Your task to perform on an android device: Go to Amazon Image 0: 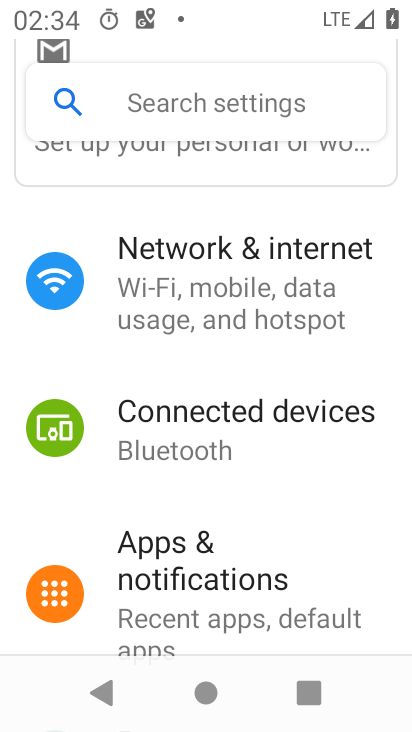
Step 0: press home button
Your task to perform on an android device: Go to Amazon Image 1: 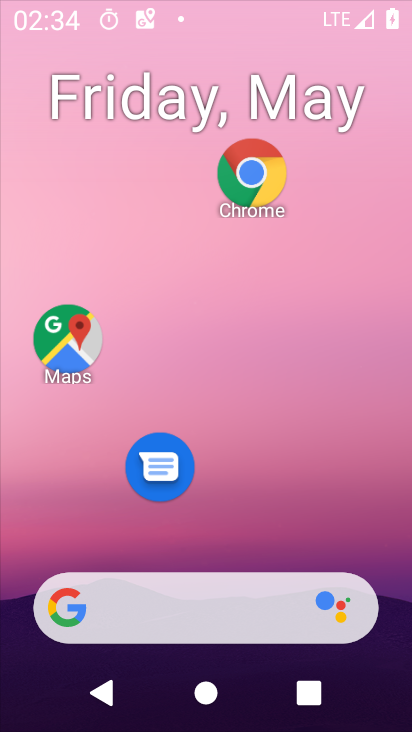
Step 1: press home button
Your task to perform on an android device: Go to Amazon Image 2: 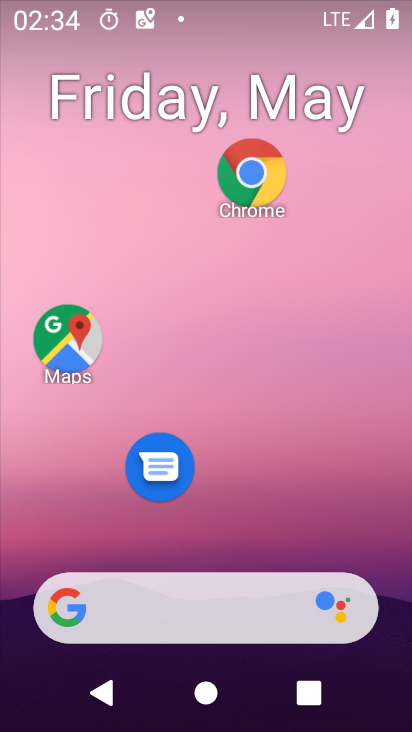
Step 2: drag from (292, 656) to (310, 180)
Your task to perform on an android device: Go to Amazon Image 3: 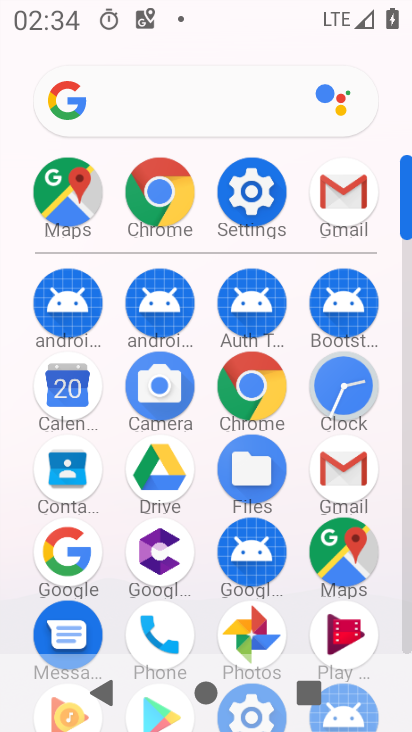
Step 3: click (180, 200)
Your task to perform on an android device: Go to Amazon Image 4: 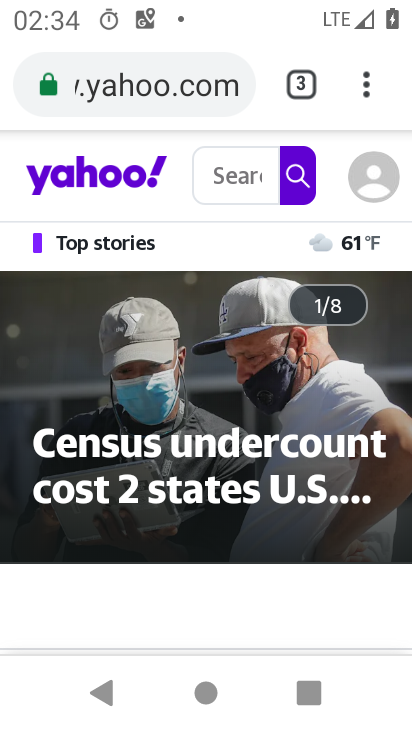
Step 4: click (301, 95)
Your task to perform on an android device: Go to Amazon Image 5: 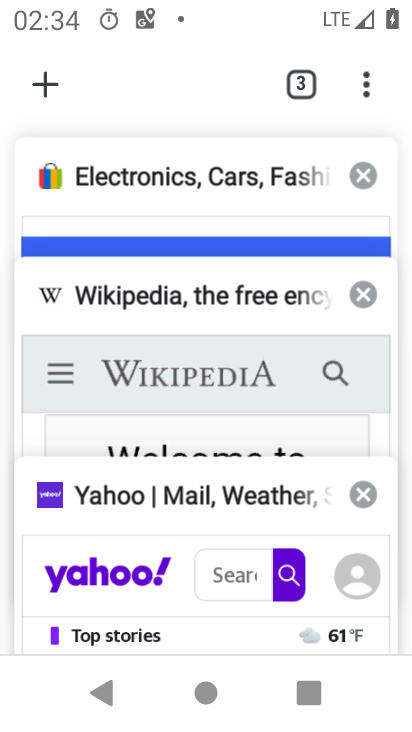
Step 5: click (21, 84)
Your task to perform on an android device: Go to Amazon Image 6: 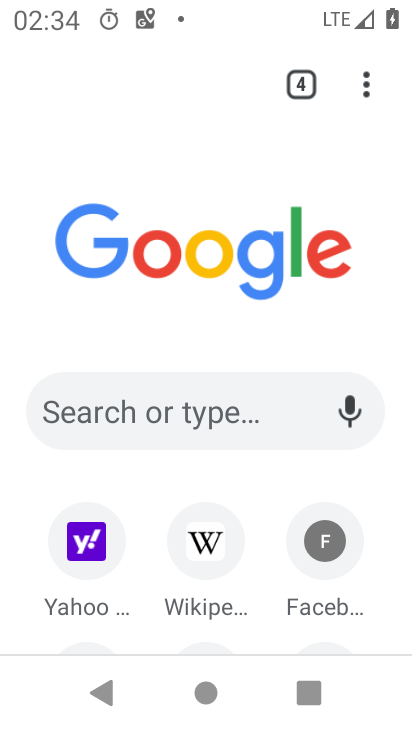
Step 6: drag from (274, 504) to (276, 224)
Your task to perform on an android device: Go to Amazon Image 7: 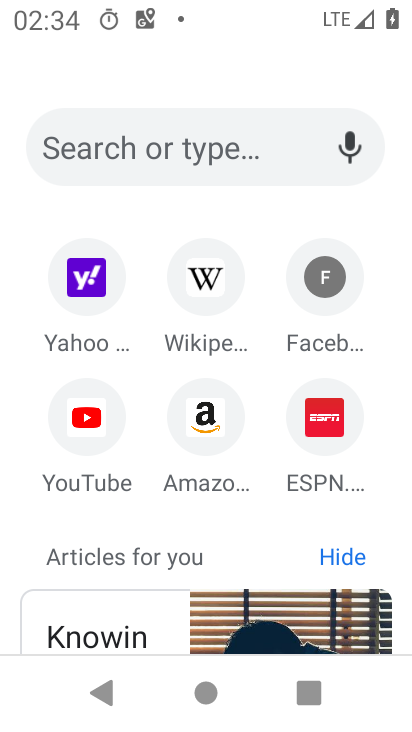
Step 7: click (205, 417)
Your task to perform on an android device: Go to Amazon Image 8: 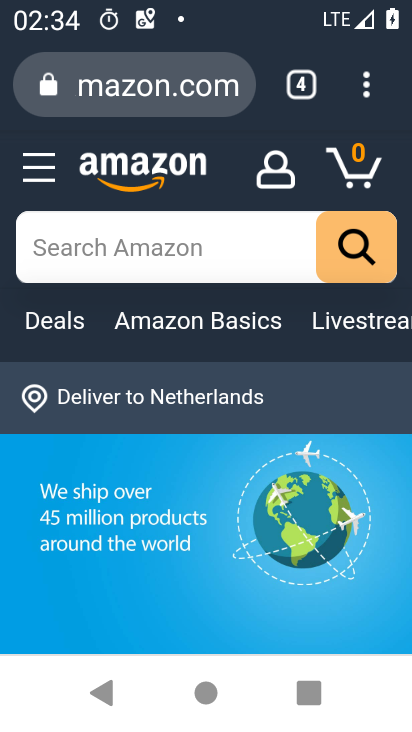
Step 8: task complete